Your task to perform on an android device: check storage Image 0: 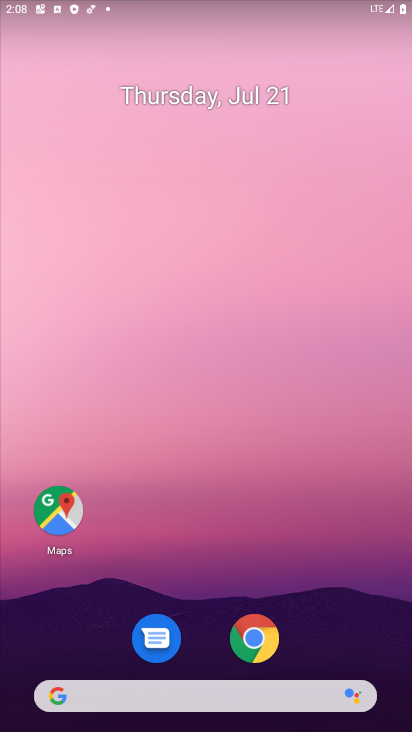
Step 0: drag from (99, 713) to (215, 11)
Your task to perform on an android device: check storage Image 1: 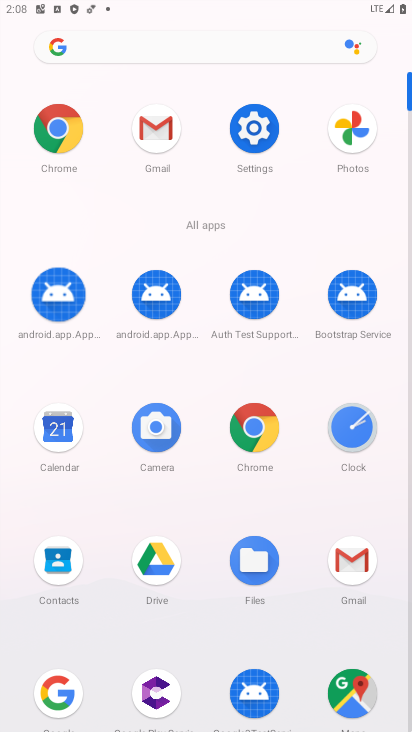
Step 1: click (247, 129)
Your task to perform on an android device: check storage Image 2: 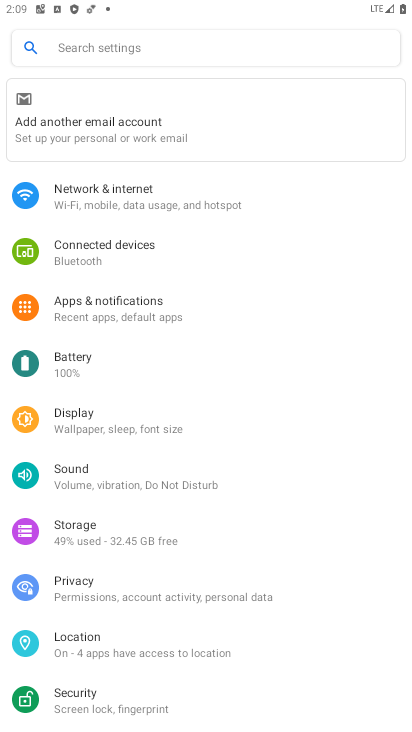
Step 2: click (164, 534)
Your task to perform on an android device: check storage Image 3: 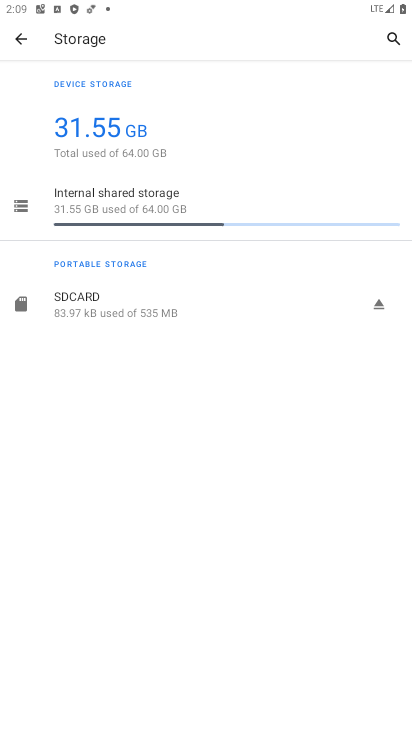
Step 3: task complete